Your task to perform on an android device: turn off priority inbox in the gmail app Image 0: 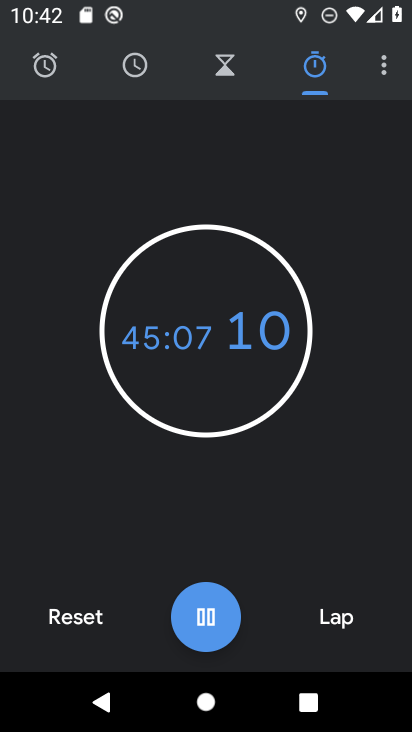
Step 0: press home button
Your task to perform on an android device: turn off priority inbox in the gmail app Image 1: 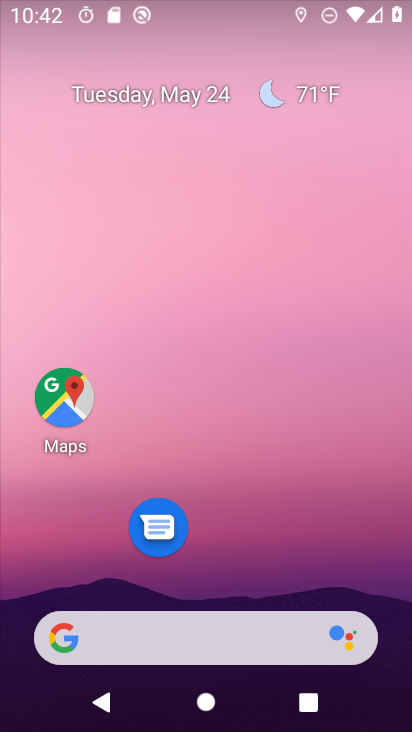
Step 1: drag from (258, 586) to (280, 63)
Your task to perform on an android device: turn off priority inbox in the gmail app Image 2: 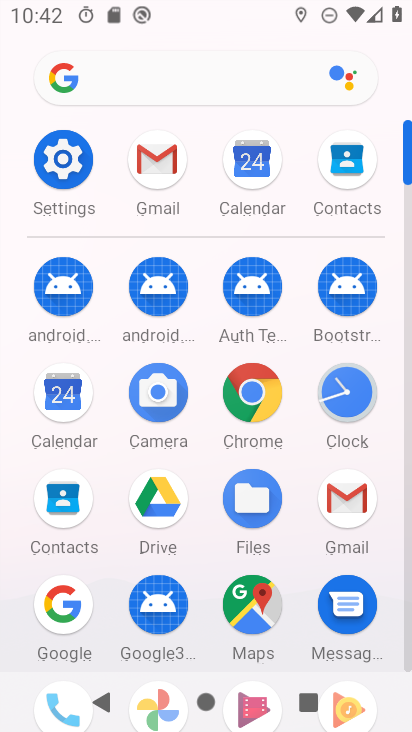
Step 2: click (162, 168)
Your task to perform on an android device: turn off priority inbox in the gmail app Image 3: 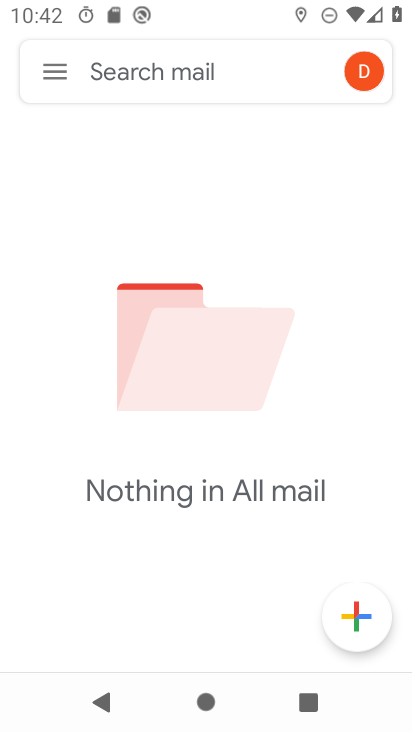
Step 3: click (50, 68)
Your task to perform on an android device: turn off priority inbox in the gmail app Image 4: 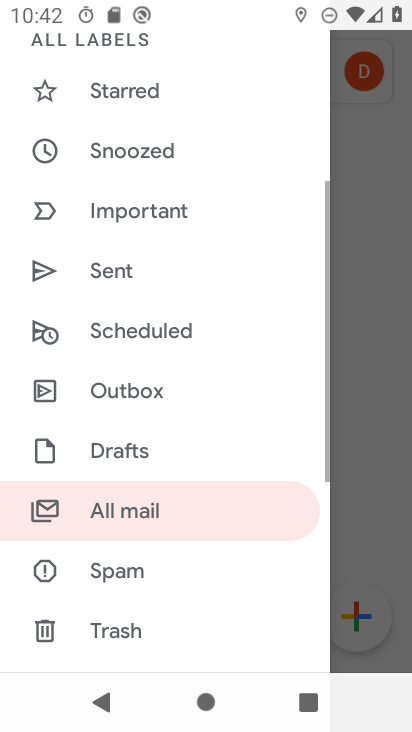
Step 4: drag from (211, 565) to (207, 109)
Your task to perform on an android device: turn off priority inbox in the gmail app Image 5: 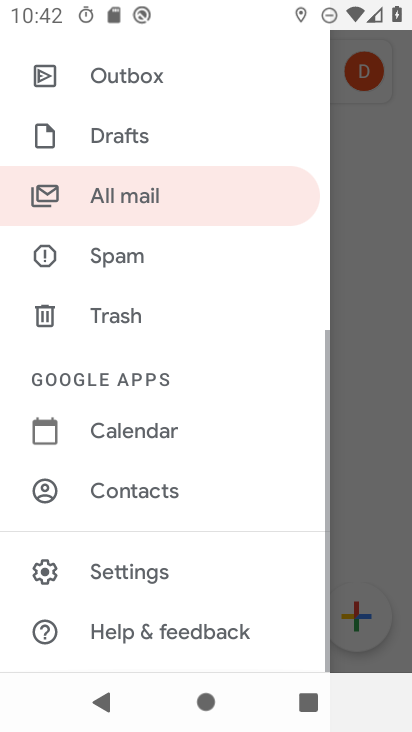
Step 5: click (161, 579)
Your task to perform on an android device: turn off priority inbox in the gmail app Image 6: 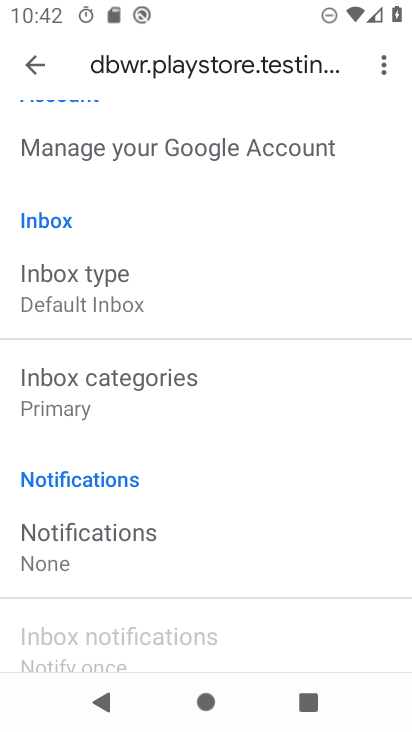
Step 6: click (75, 296)
Your task to perform on an android device: turn off priority inbox in the gmail app Image 7: 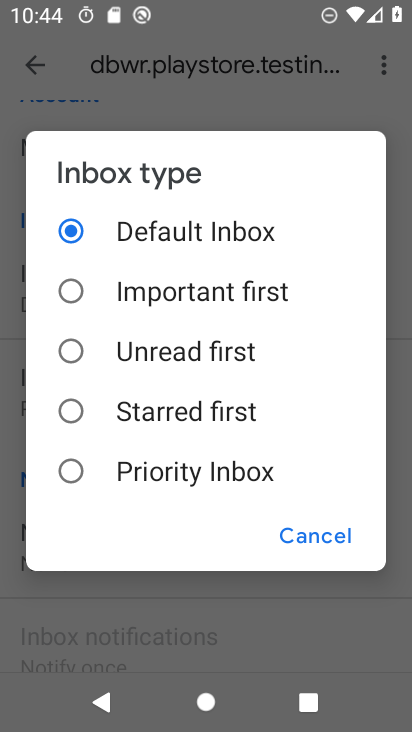
Step 7: task complete